Your task to perform on an android device: Install the Yahoo app Image 0: 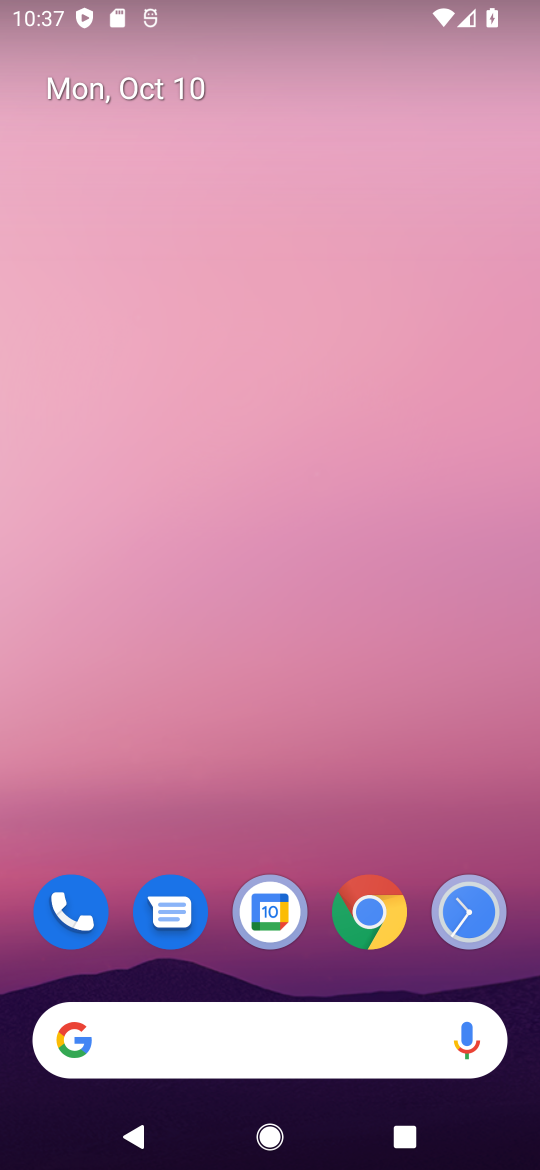
Step 0: click (69, 1051)
Your task to perform on an android device: Install the Yahoo app Image 1: 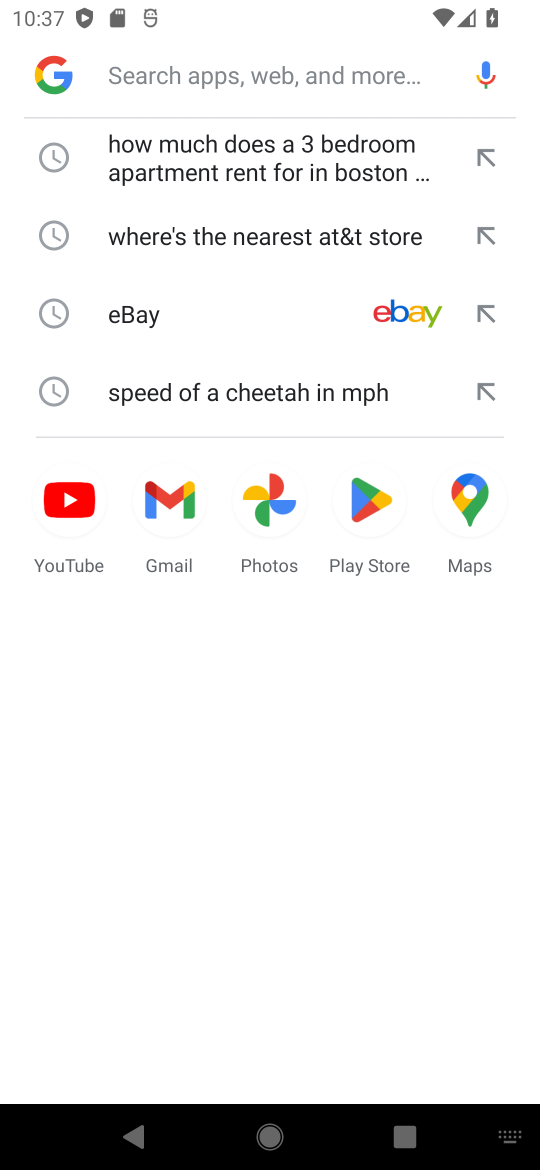
Step 1: click (256, 75)
Your task to perform on an android device: Install the Yahoo app Image 2: 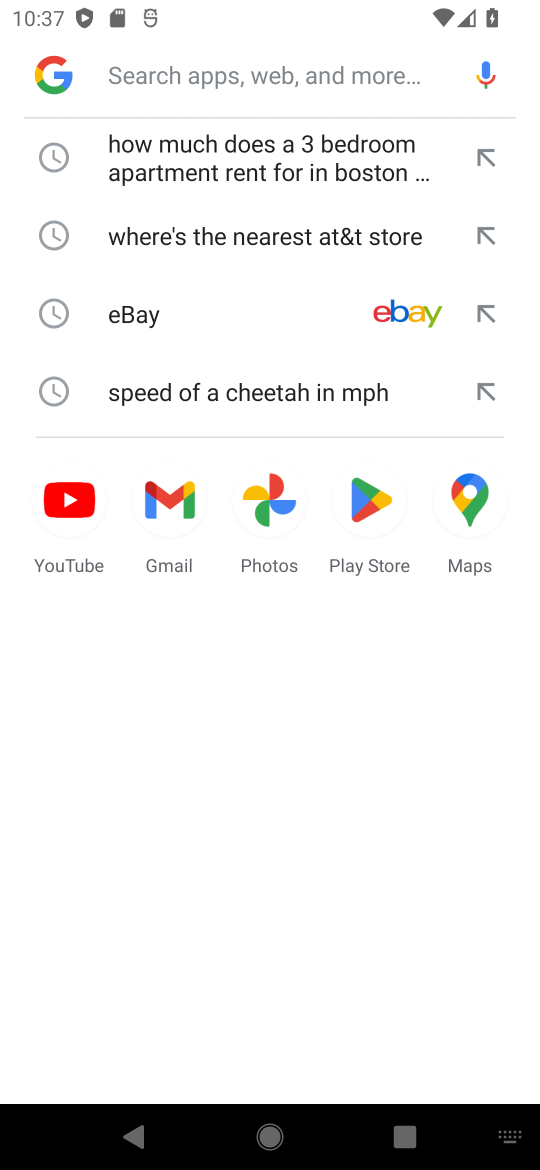
Step 2: type "yahoo app"
Your task to perform on an android device: Install the Yahoo app Image 3: 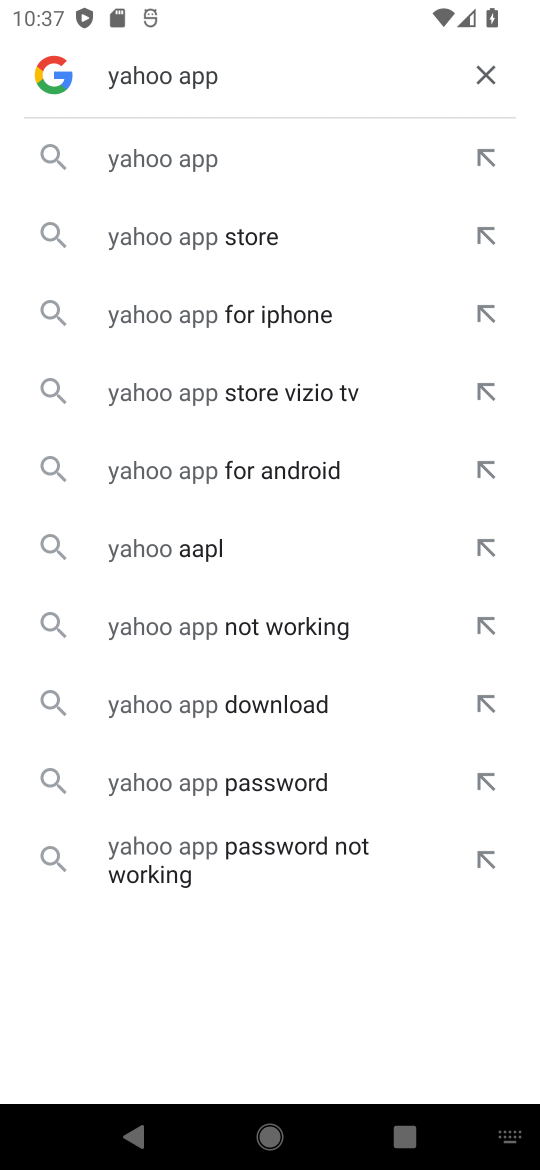
Step 3: click (140, 166)
Your task to perform on an android device: Install the Yahoo app Image 4: 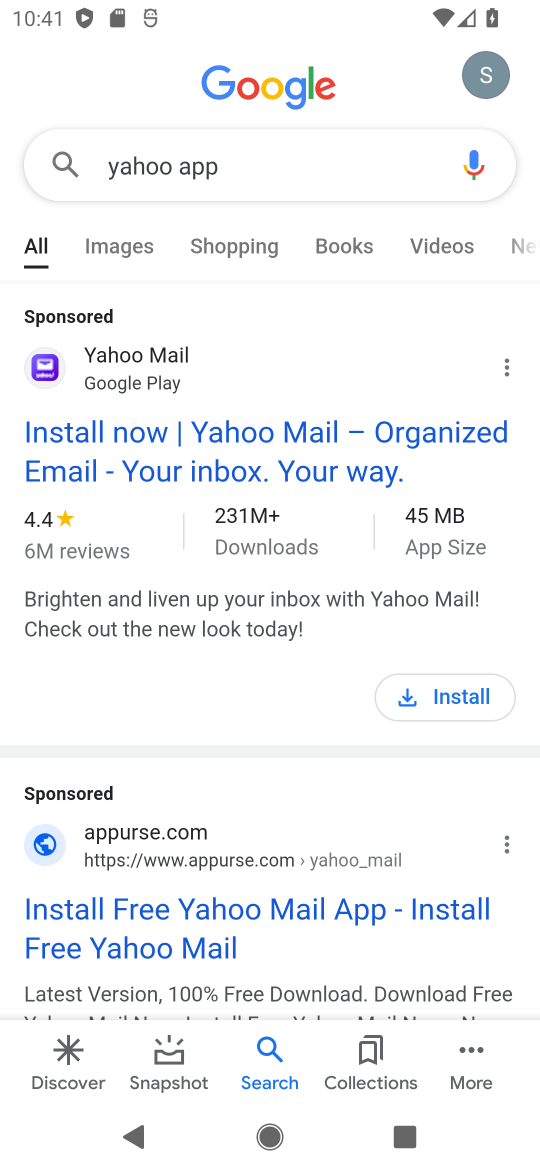
Step 4: click (195, 443)
Your task to perform on an android device: Install the Yahoo app Image 5: 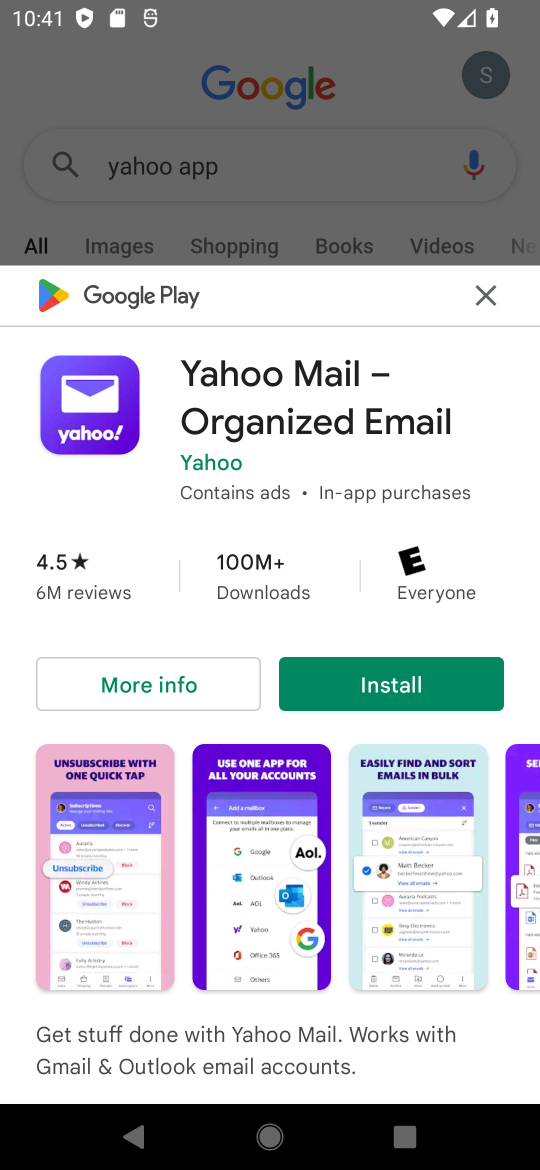
Step 5: click (380, 675)
Your task to perform on an android device: Install the Yahoo app Image 6: 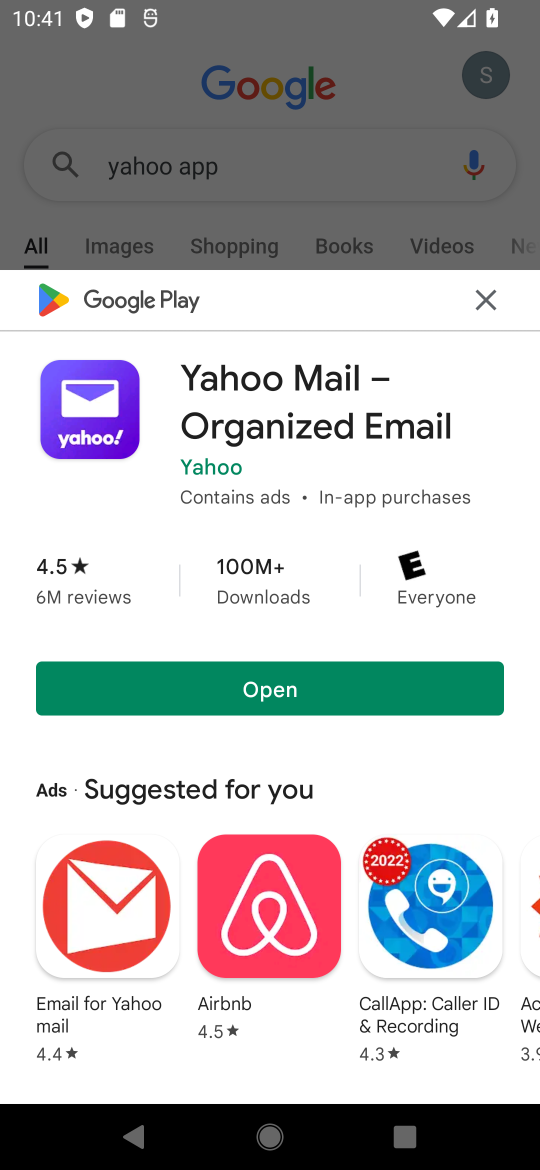
Step 6: click (254, 698)
Your task to perform on an android device: Install the Yahoo app Image 7: 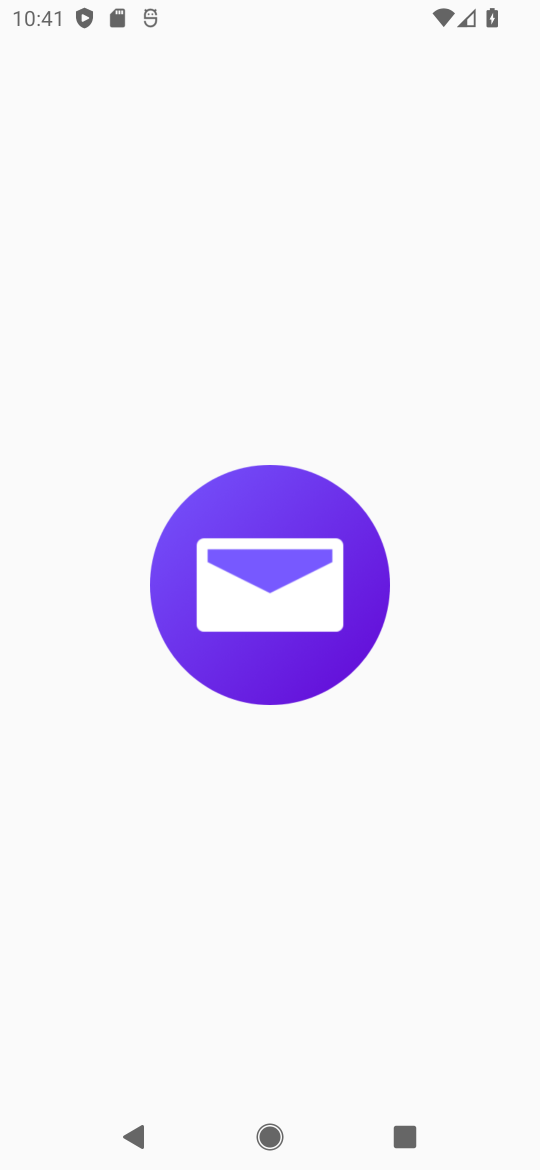
Step 7: task complete